Your task to perform on an android device: Add macbook air to the cart on ebay.com Image 0: 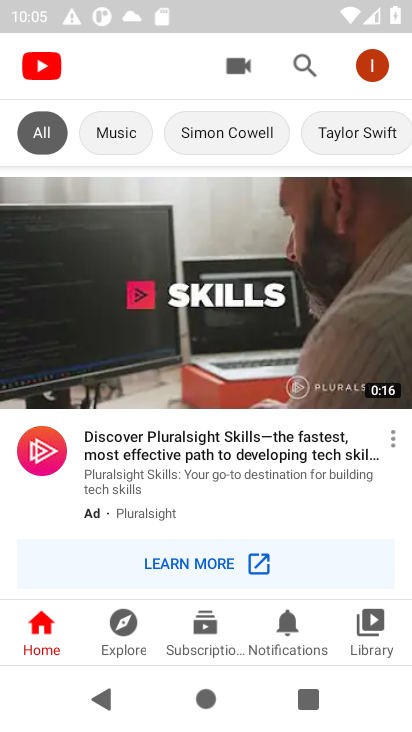
Step 0: press home button
Your task to perform on an android device: Add macbook air to the cart on ebay.com Image 1: 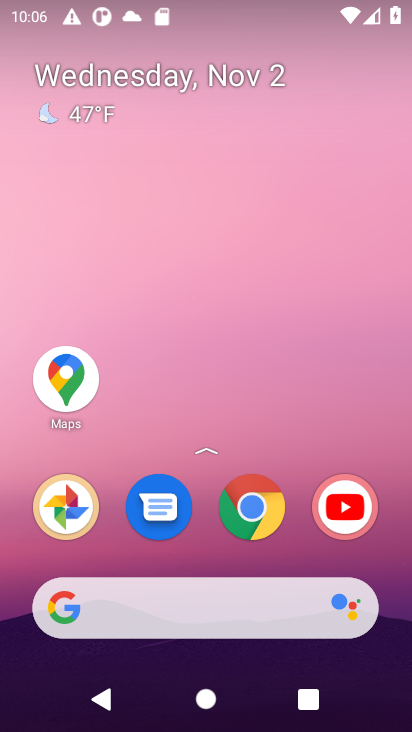
Step 1: click (244, 597)
Your task to perform on an android device: Add macbook air to the cart on ebay.com Image 2: 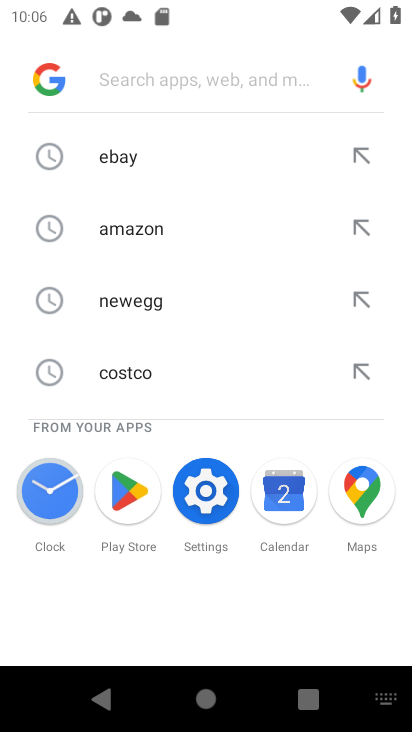
Step 2: click (122, 151)
Your task to perform on an android device: Add macbook air to the cart on ebay.com Image 3: 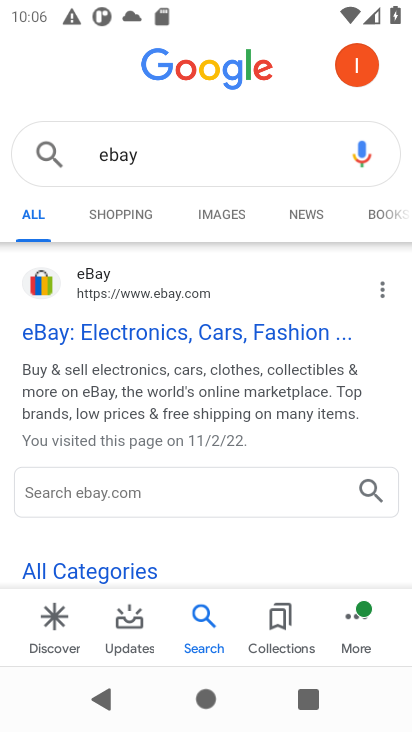
Step 3: click (129, 331)
Your task to perform on an android device: Add macbook air to the cart on ebay.com Image 4: 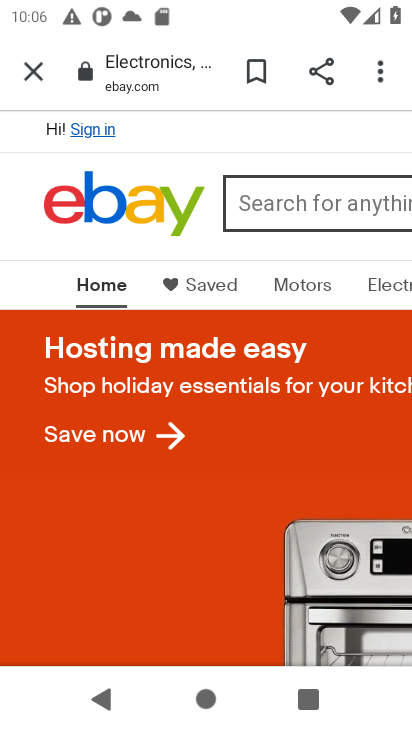
Step 4: click (281, 207)
Your task to perform on an android device: Add macbook air to the cart on ebay.com Image 5: 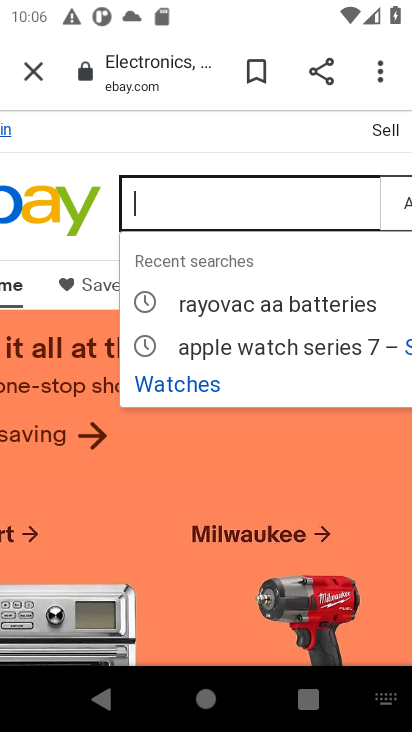
Step 5: type "macbook air"
Your task to perform on an android device: Add macbook air to the cart on ebay.com Image 6: 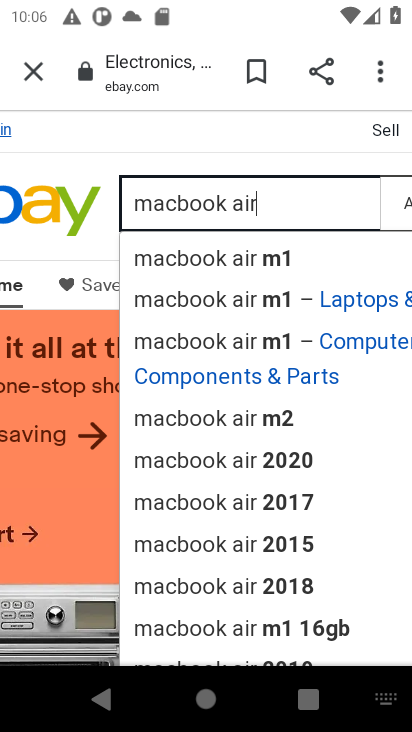
Step 6: click (187, 266)
Your task to perform on an android device: Add macbook air to the cart on ebay.com Image 7: 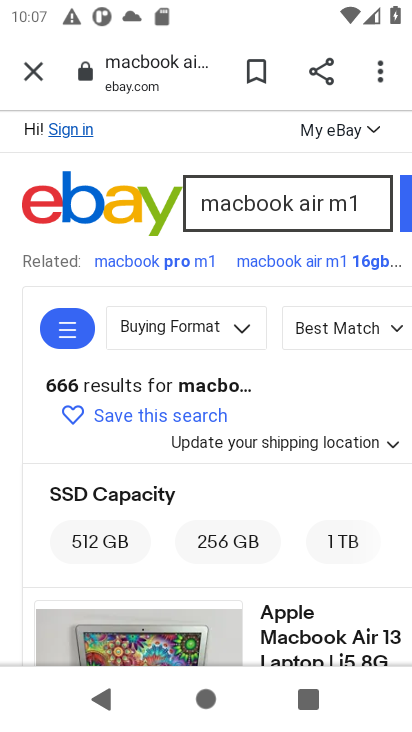
Step 7: click (272, 625)
Your task to perform on an android device: Add macbook air to the cart on ebay.com Image 8: 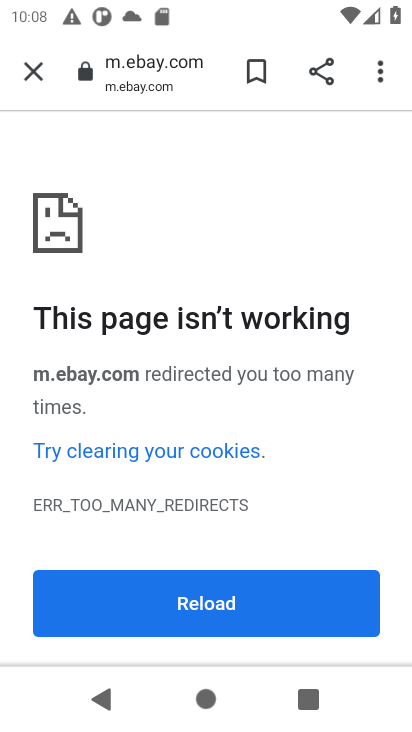
Step 8: task complete